Your task to perform on an android device: see tabs open on other devices in the chrome app Image 0: 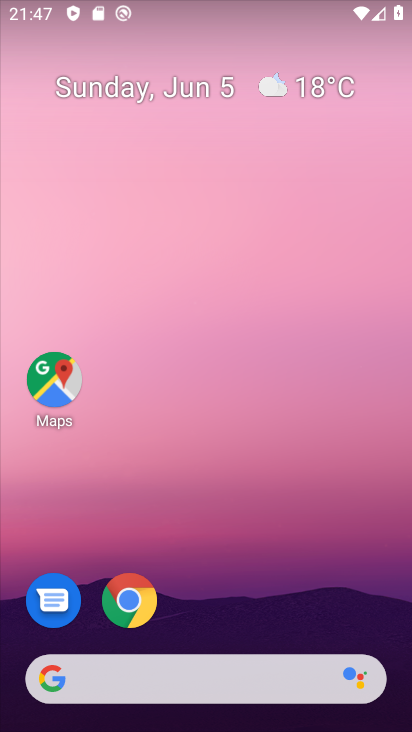
Step 0: drag from (330, 552) to (291, 146)
Your task to perform on an android device: see tabs open on other devices in the chrome app Image 1: 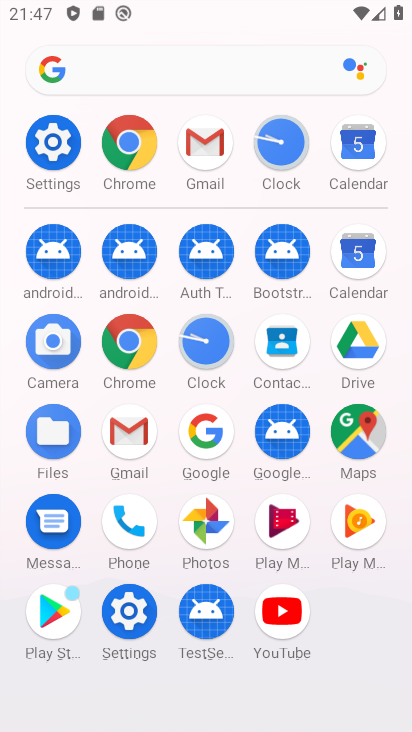
Step 1: click (137, 347)
Your task to perform on an android device: see tabs open on other devices in the chrome app Image 2: 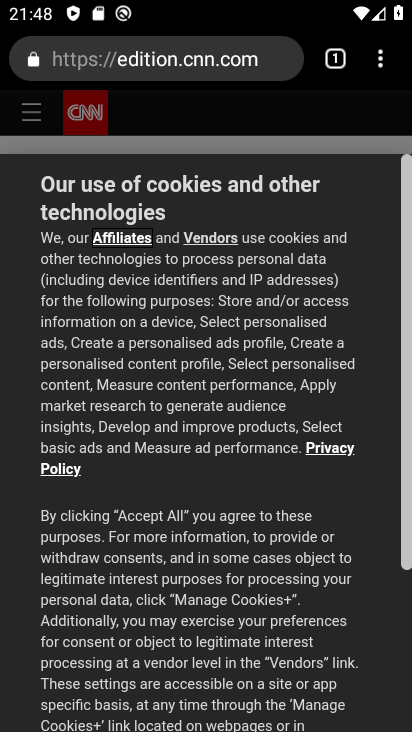
Step 2: drag from (383, 56) to (213, 304)
Your task to perform on an android device: see tabs open on other devices in the chrome app Image 3: 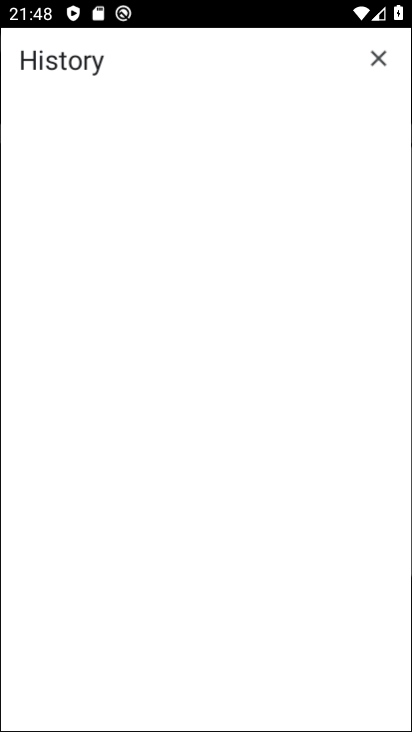
Step 3: drag from (226, 218) to (271, 174)
Your task to perform on an android device: see tabs open on other devices in the chrome app Image 4: 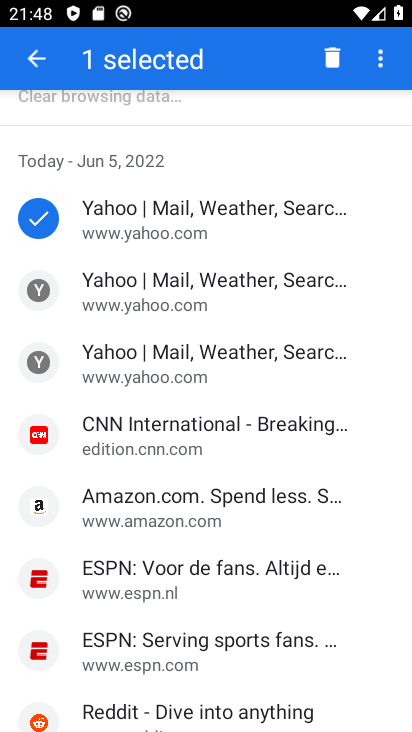
Step 4: click (35, 67)
Your task to perform on an android device: see tabs open on other devices in the chrome app Image 5: 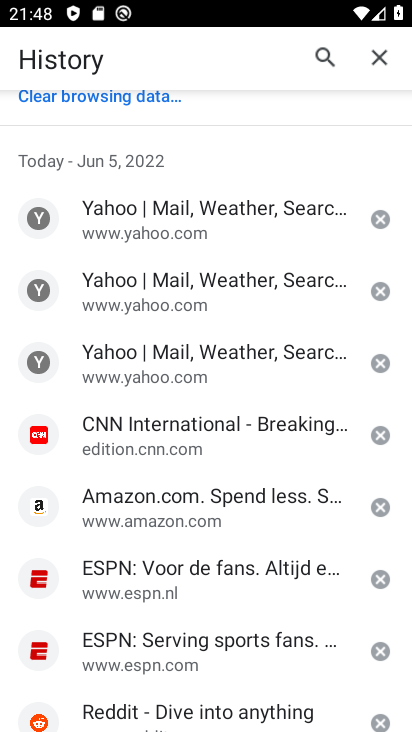
Step 5: click (388, 62)
Your task to perform on an android device: see tabs open on other devices in the chrome app Image 6: 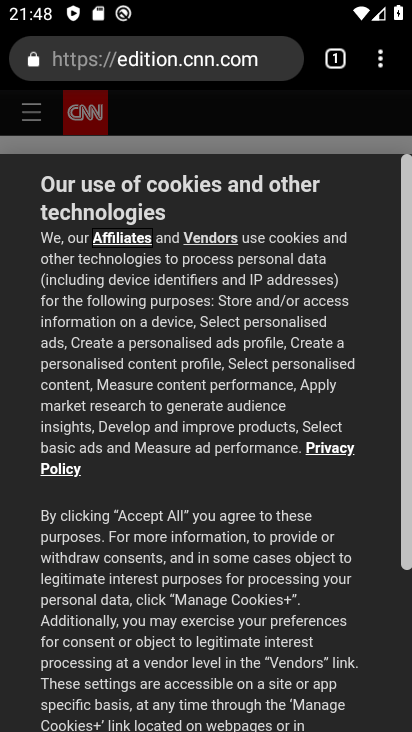
Step 6: task complete